Your task to perform on an android device: Open Google Maps and go to "Timeline" Image 0: 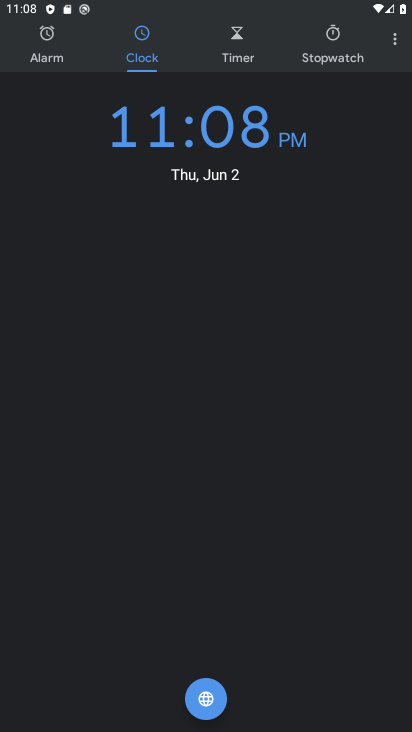
Step 0: press home button
Your task to perform on an android device: Open Google Maps and go to "Timeline" Image 1: 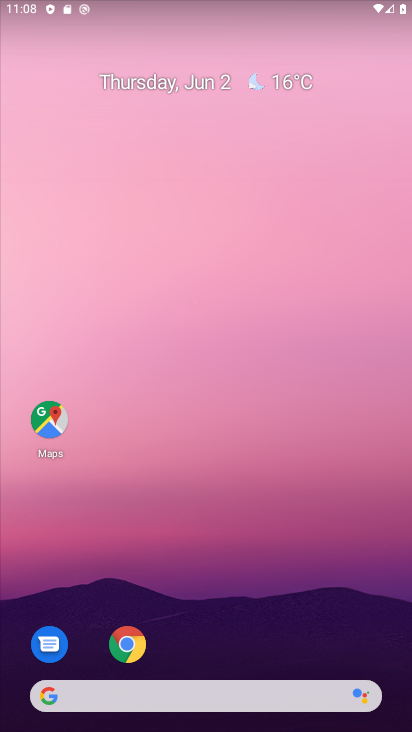
Step 1: click (46, 418)
Your task to perform on an android device: Open Google Maps and go to "Timeline" Image 2: 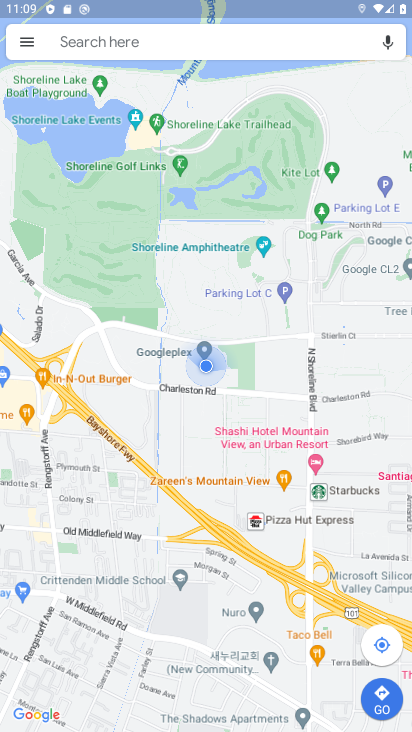
Step 2: click (24, 32)
Your task to perform on an android device: Open Google Maps and go to "Timeline" Image 3: 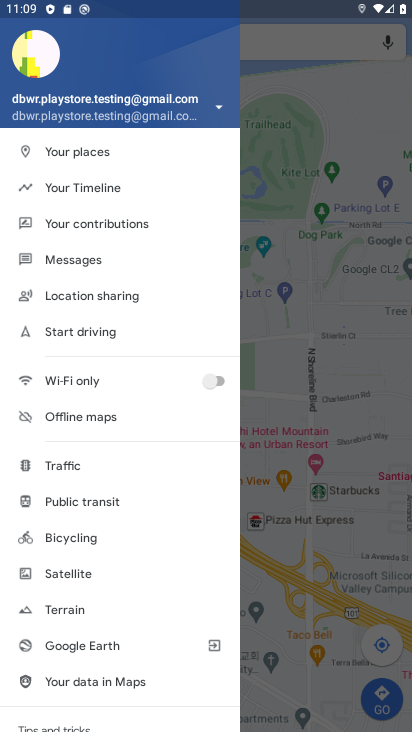
Step 3: click (97, 184)
Your task to perform on an android device: Open Google Maps and go to "Timeline" Image 4: 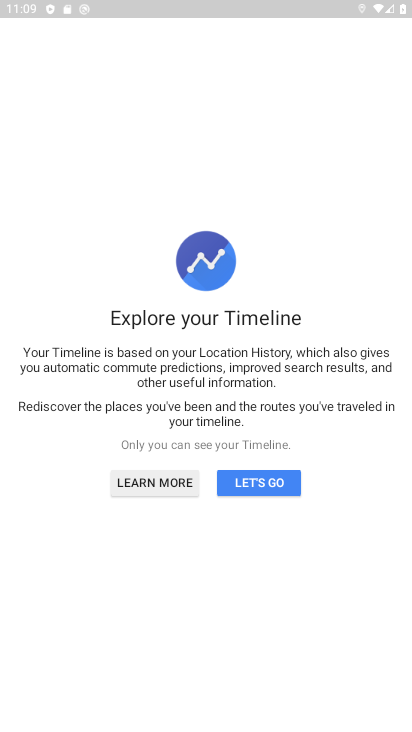
Step 4: task complete